Your task to perform on an android device: choose inbox layout in the gmail app Image 0: 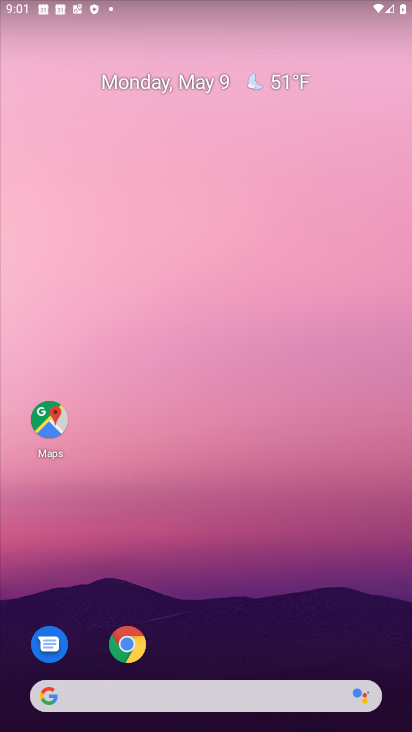
Step 0: drag from (232, 668) to (123, 24)
Your task to perform on an android device: choose inbox layout in the gmail app Image 1: 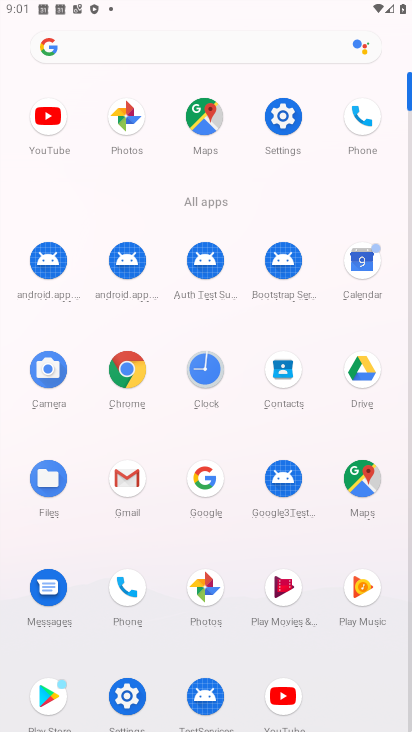
Step 1: click (128, 489)
Your task to perform on an android device: choose inbox layout in the gmail app Image 2: 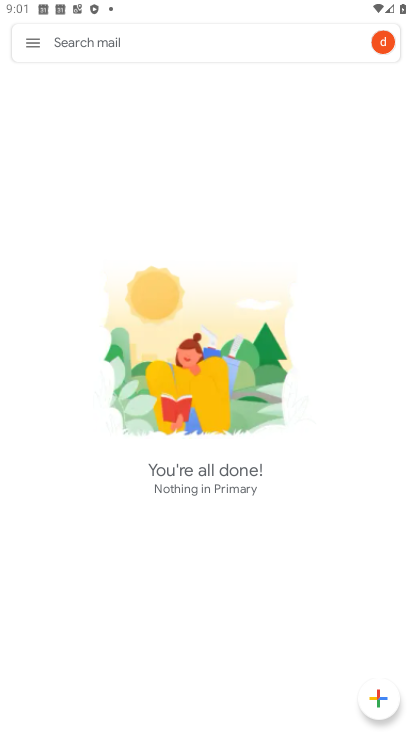
Step 2: click (24, 43)
Your task to perform on an android device: choose inbox layout in the gmail app Image 3: 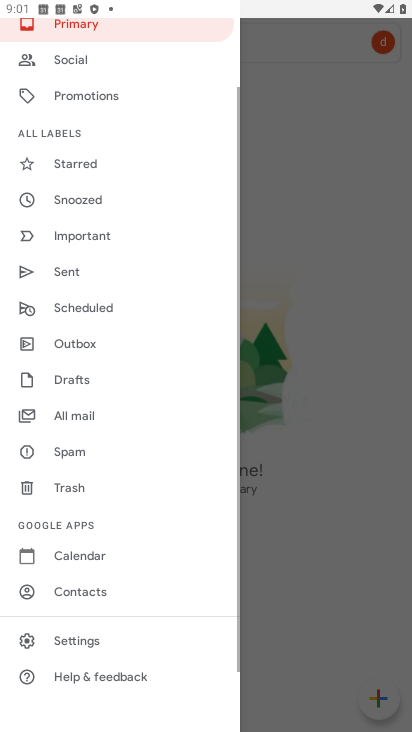
Step 3: click (107, 638)
Your task to perform on an android device: choose inbox layout in the gmail app Image 4: 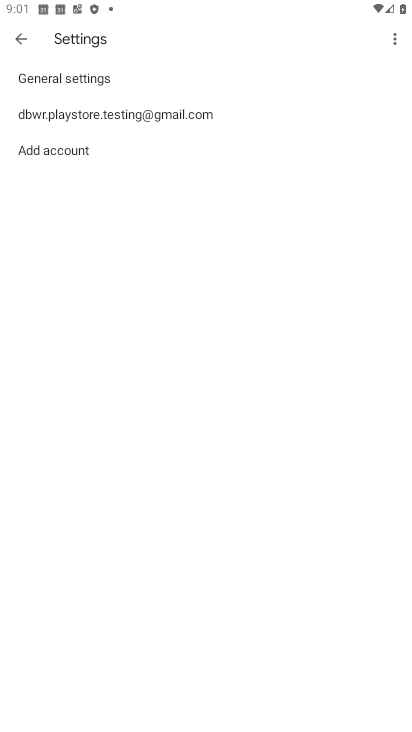
Step 4: click (86, 116)
Your task to perform on an android device: choose inbox layout in the gmail app Image 5: 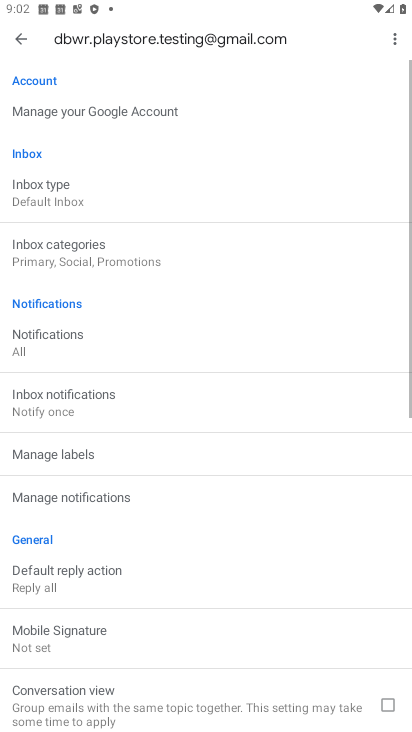
Step 5: click (57, 178)
Your task to perform on an android device: choose inbox layout in the gmail app Image 6: 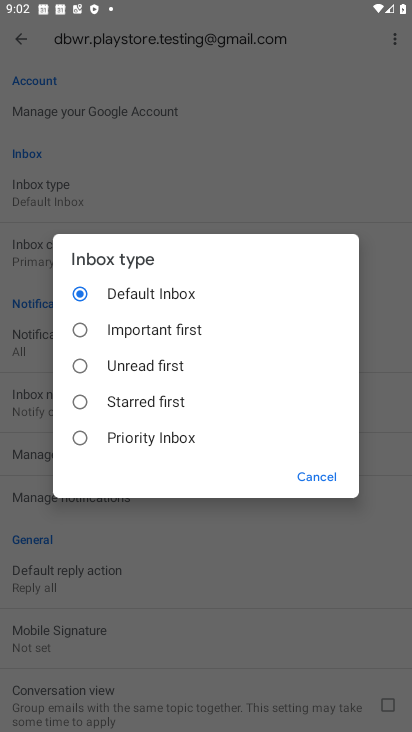
Step 6: task complete